Your task to perform on an android device: Go to location settings Image 0: 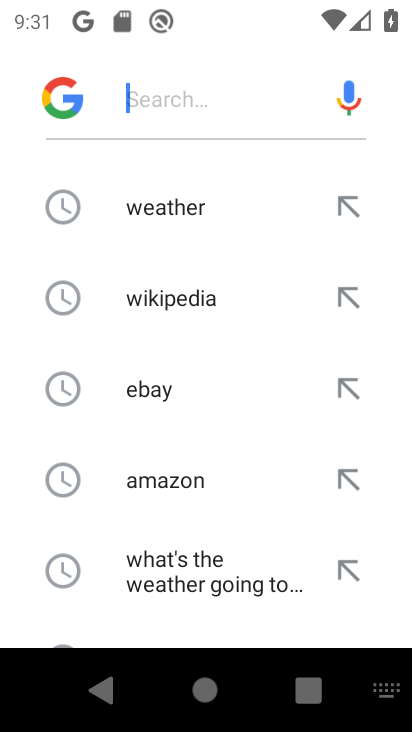
Step 0: press home button
Your task to perform on an android device: Go to location settings Image 1: 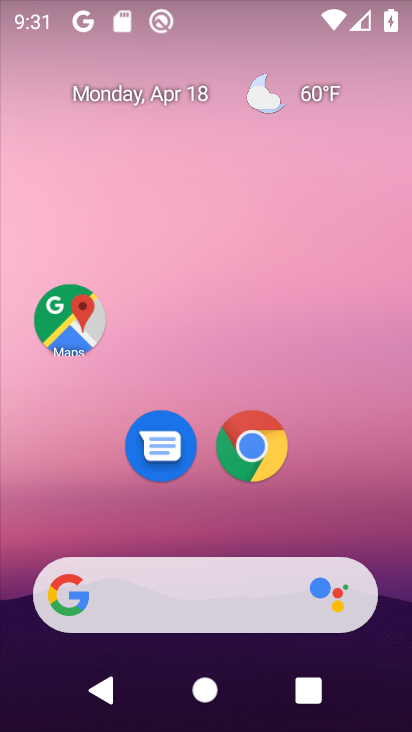
Step 1: drag from (390, 552) to (383, 131)
Your task to perform on an android device: Go to location settings Image 2: 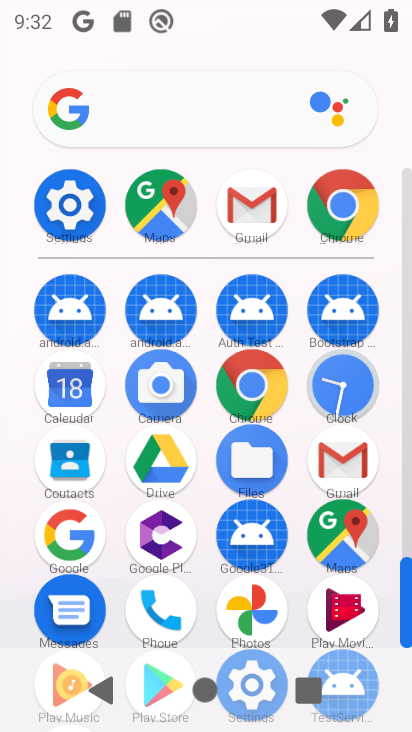
Step 2: click (69, 203)
Your task to perform on an android device: Go to location settings Image 3: 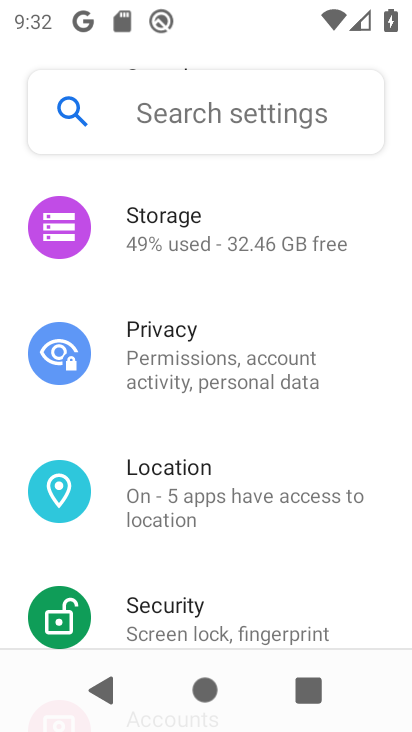
Step 3: click (182, 497)
Your task to perform on an android device: Go to location settings Image 4: 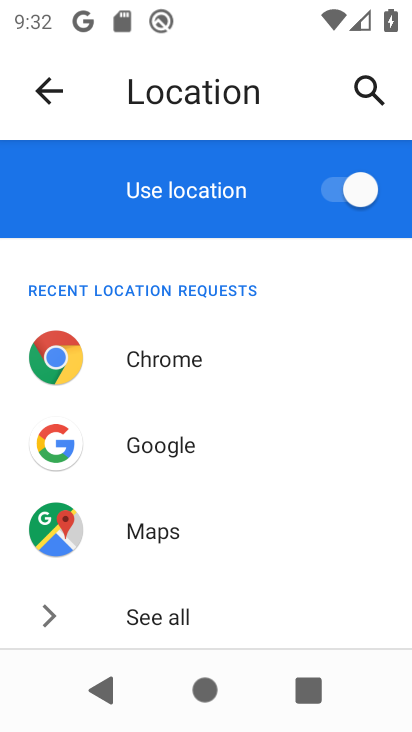
Step 4: task complete